Your task to perform on an android device: open app "Lyft - Rideshare, Bikes, Scooters & Transit" Image 0: 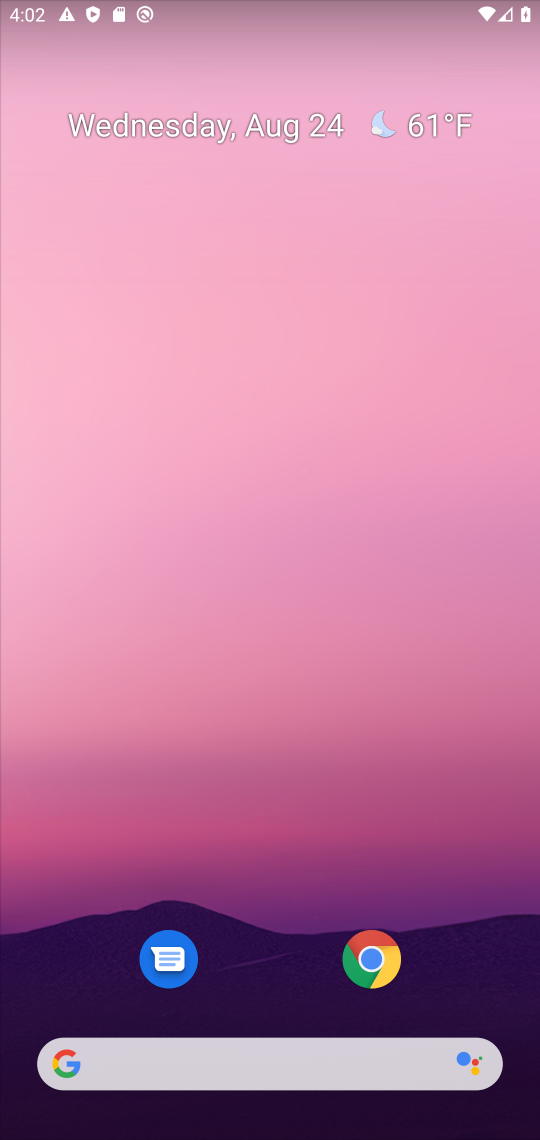
Step 0: drag from (293, 1012) to (253, 38)
Your task to perform on an android device: open app "Lyft - Rideshare, Bikes, Scooters & Transit" Image 1: 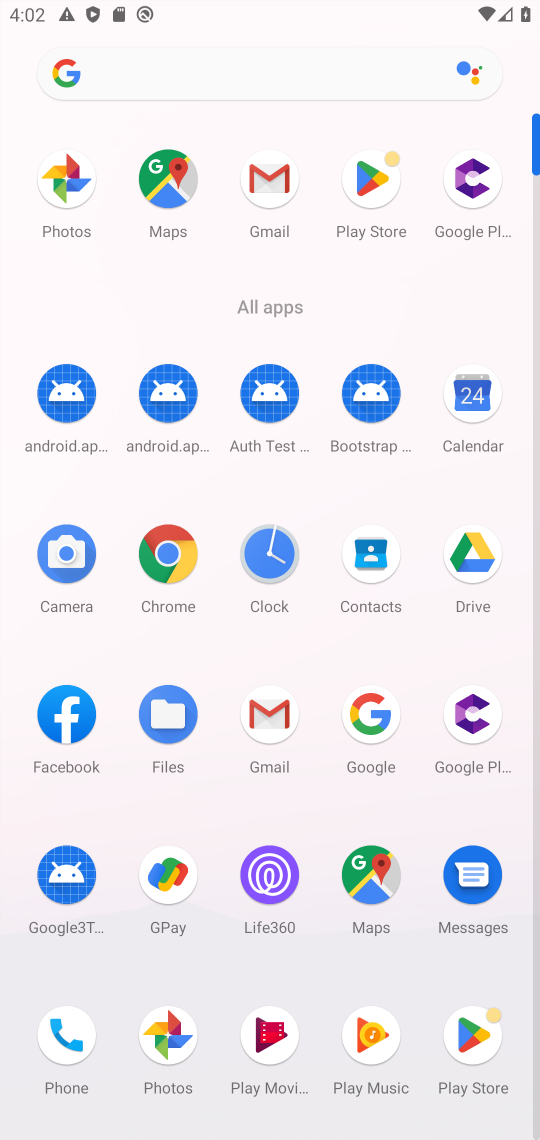
Step 1: press home button
Your task to perform on an android device: open app "Lyft - Rideshare, Bikes, Scooters & Transit" Image 2: 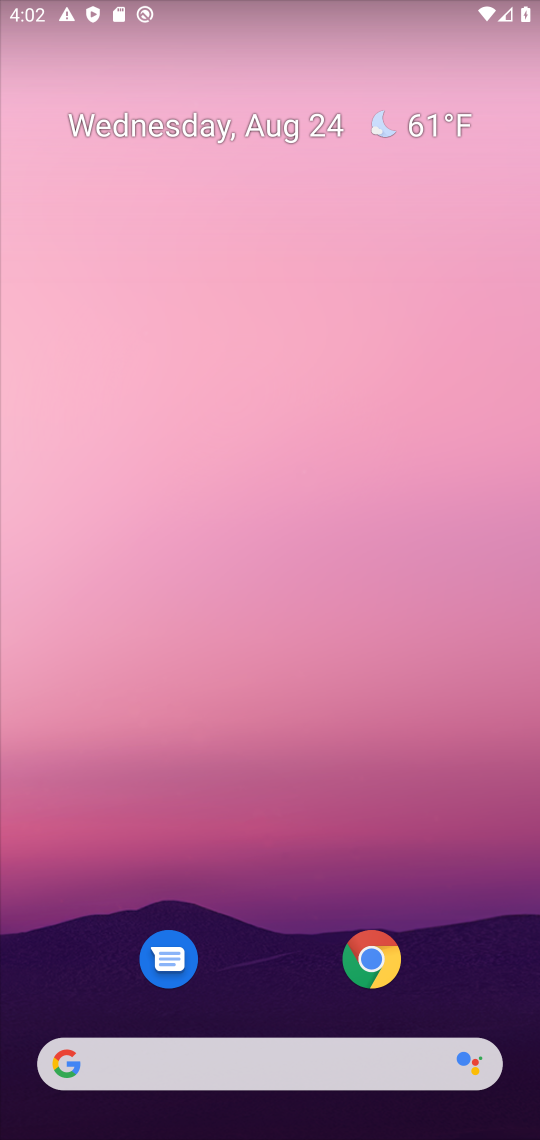
Step 2: drag from (269, 1009) to (281, 38)
Your task to perform on an android device: open app "Lyft - Rideshare, Bikes, Scooters & Transit" Image 3: 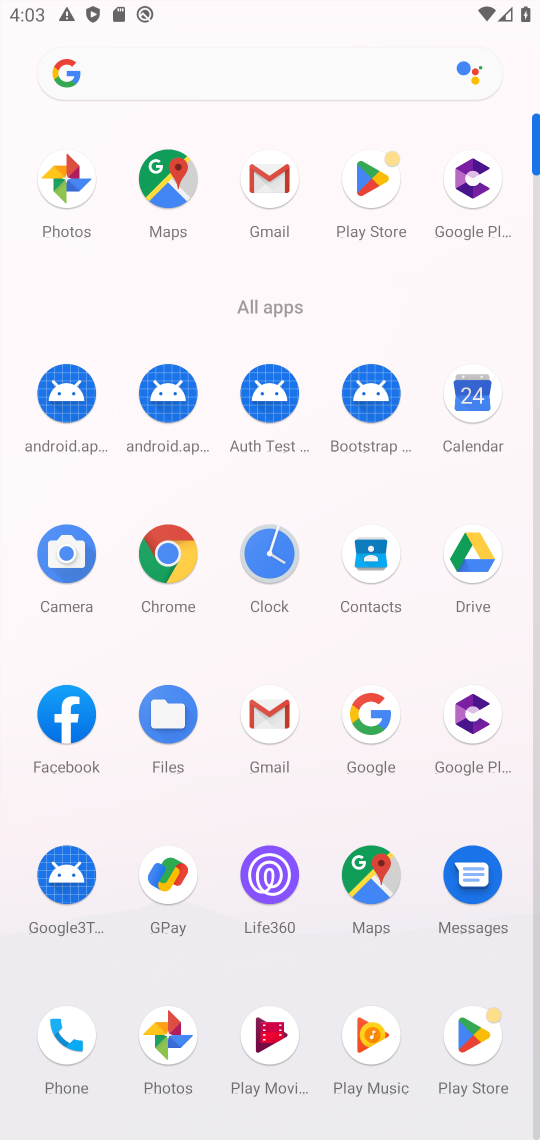
Step 3: click (364, 194)
Your task to perform on an android device: open app "Lyft - Rideshare, Bikes, Scooters & Transit" Image 4: 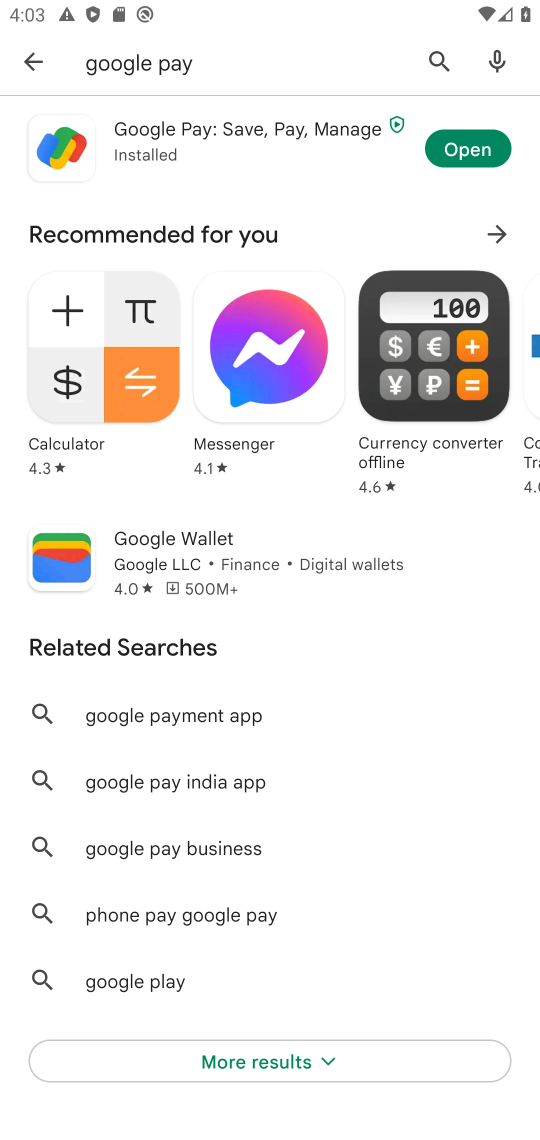
Step 4: click (438, 78)
Your task to perform on an android device: open app "Lyft - Rideshare, Bikes, Scooters & Transit" Image 5: 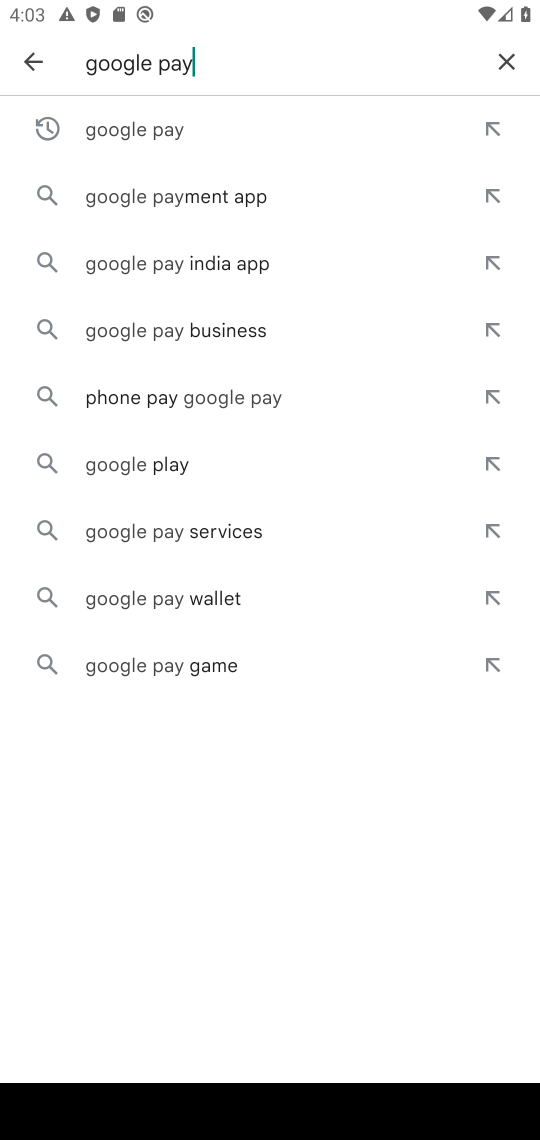
Step 5: click (496, 50)
Your task to perform on an android device: open app "Lyft - Rideshare, Bikes, Scooters & Transit" Image 6: 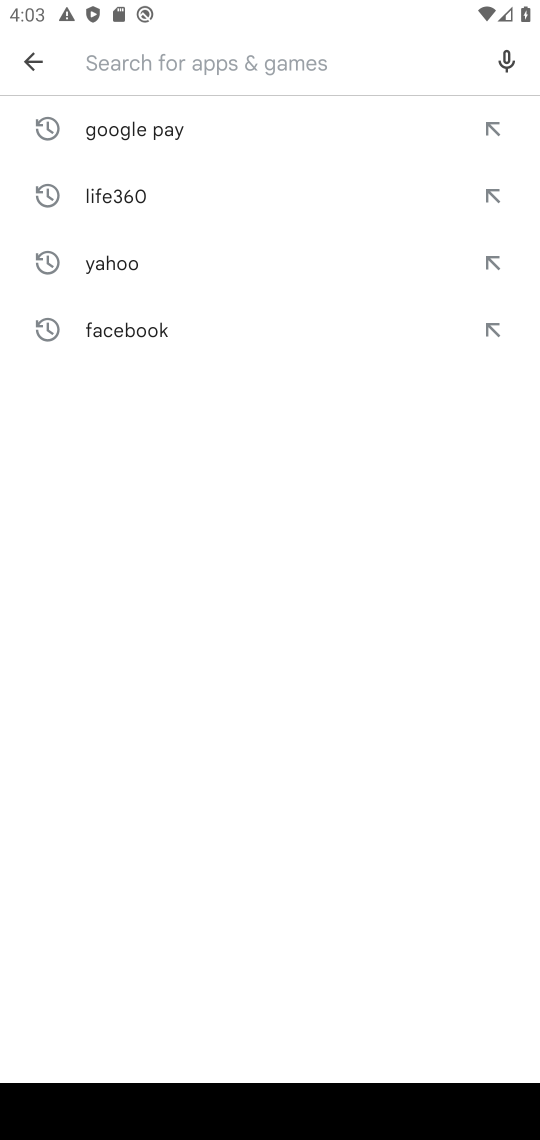
Step 6: type "lyst"
Your task to perform on an android device: open app "Lyft - Rideshare, Bikes, Scooters & Transit" Image 7: 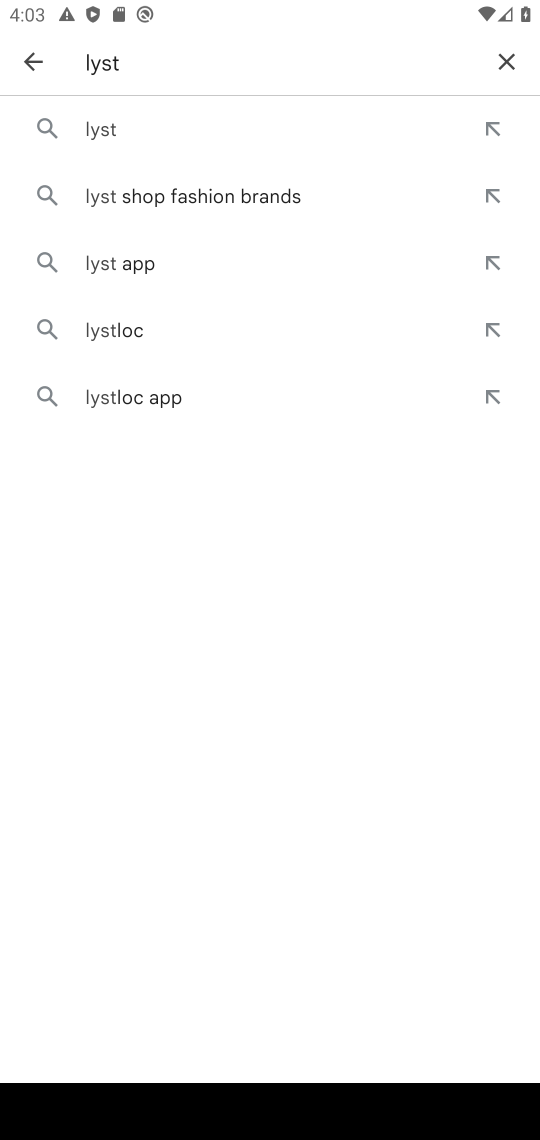
Step 7: click (236, 127)
Your task to perform on an android device: open app "Lyft - Rideshare, Bikes, Scooters & Transit" Image 8: 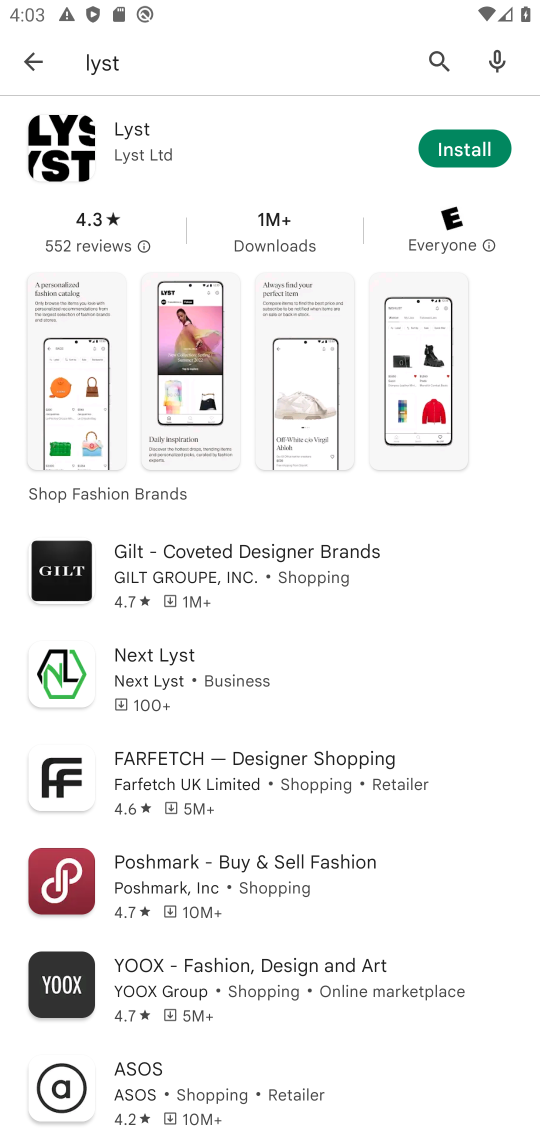
Step 8: click (487, 146)
Your task to perform on an android device: open app "Lyft - Rideshare, Bikes, Scooters & Transit" Image 9: 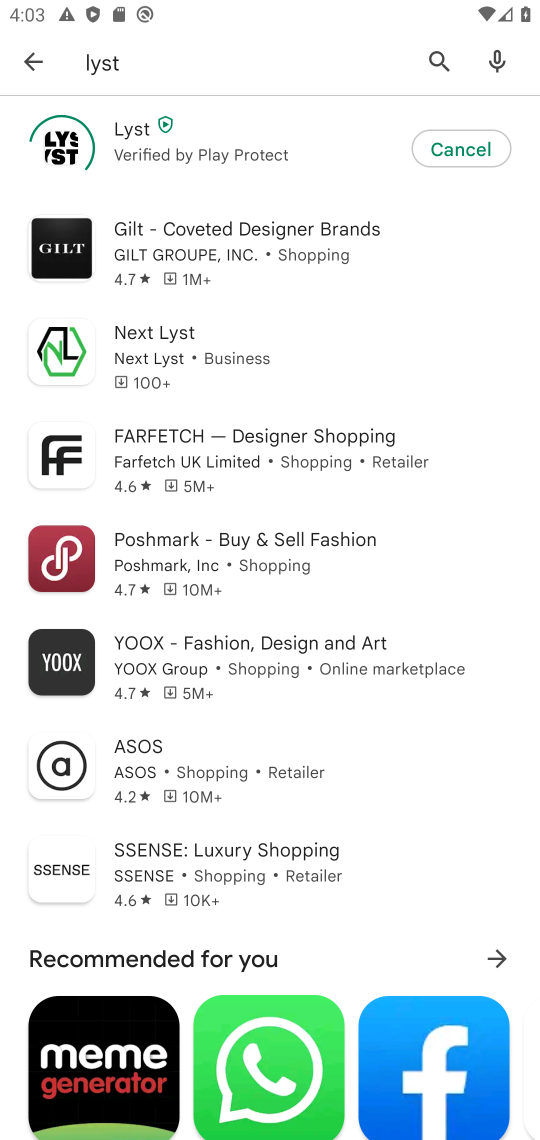
Step 9: task complete